Your task to perform on an android device: find snoozed emails in the gmail app Image 0: 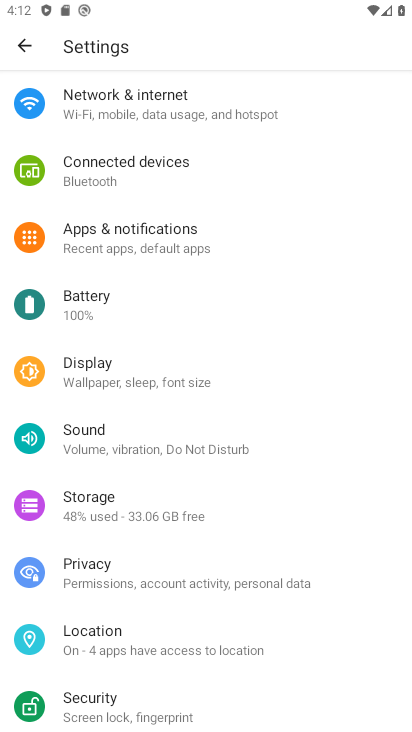
Step 0: press home button
Your task to perform on an android device: find snoozed emails in the gmail app Image 1: 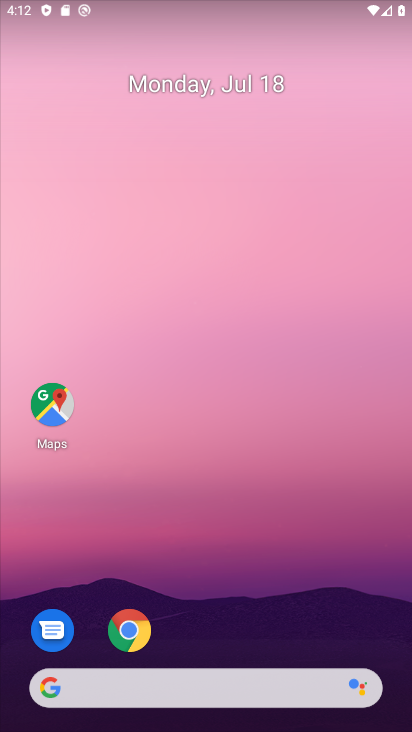
Step 1: drag from (225, 579) to (186, 119)
Your task to perform on an android device: find snoozed emails in the gmail app Image 2: 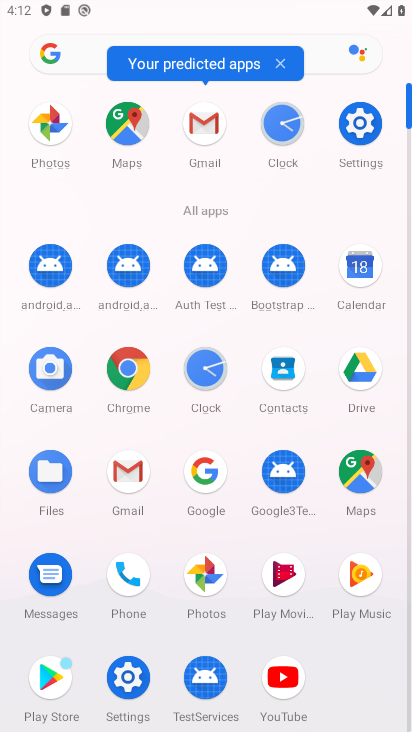
Step 2: click (190, 120)
Your task to perform on an android device: find snoozed emails in the gmail app Image 3: 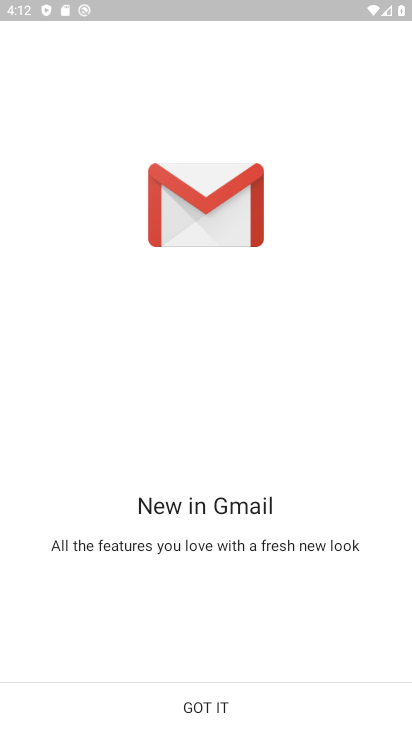
Step 3: click (202, 698)
Your task to perform on an android device: find snoozed emails in the gmail app Image 4: 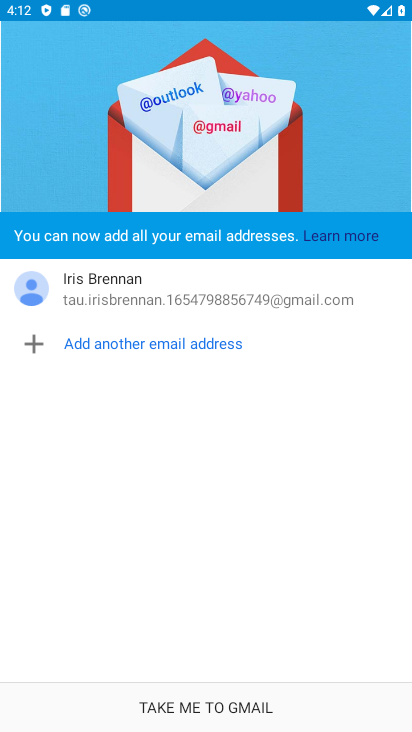
Step 4: click (227, 712)
Your task to perform on an android device: find snoozed emails in the gmail app Image 5: 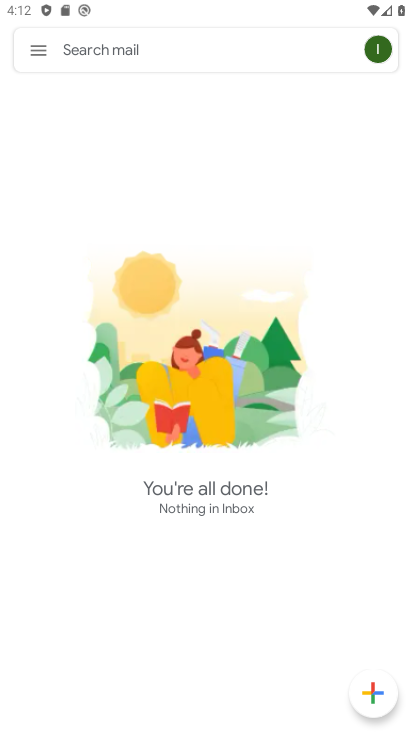
Step 5: click (37, 46)
Your task to perform on an android device: find snoozed emails in the gmail app Image 6: 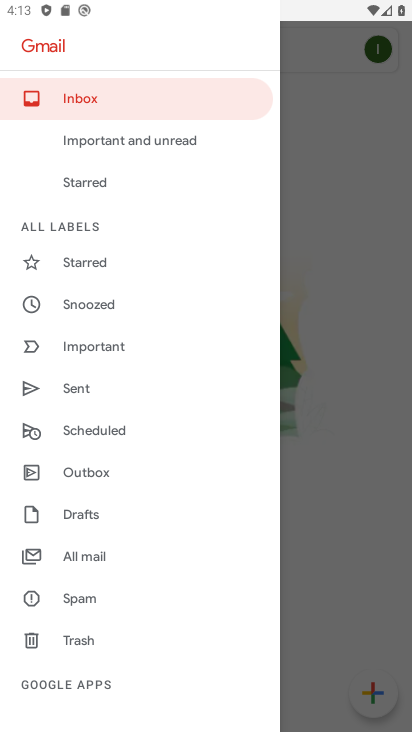
Step 6: click (96, 299)
Your task to perform on an android device: find snoozed emails in the gmail app Image 7: 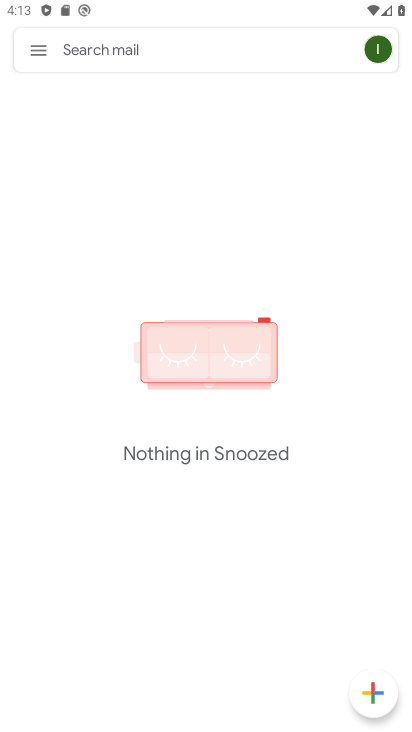
Step 7: task complete